Your task to perform on an android device: Open settings Image 0: 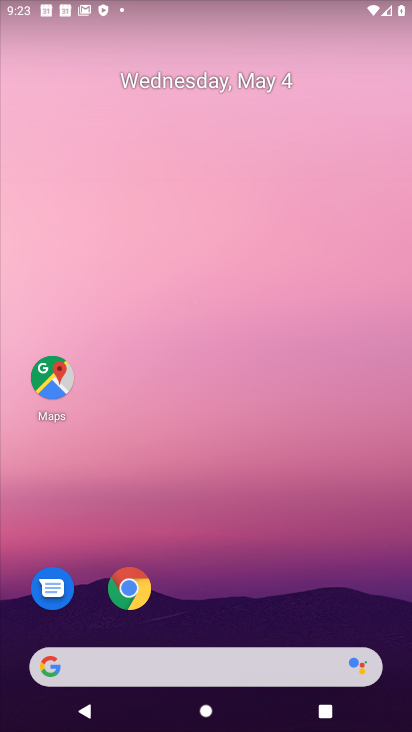
Step 0: drag from (192, 631) to (281, 203)
Your task to perform on an android device: Open settings Image 1: 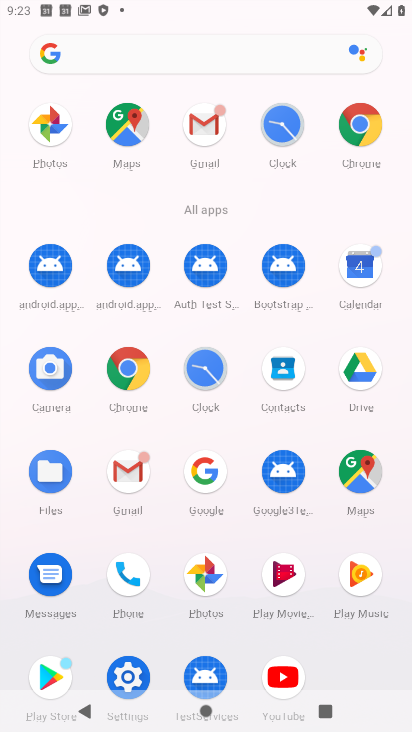
Step 1: click (127, 670)
Your task to perform on an android device: Open settings Image 2: 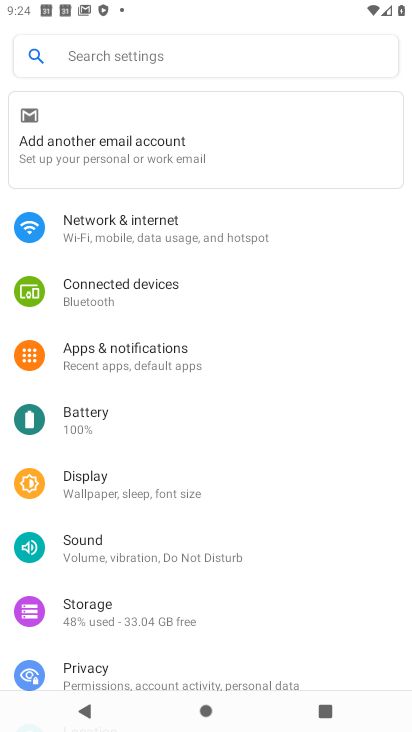
Step 2: task complete